Your task to perform on an android device: see tabs open on other devices in the chrome app Image 0: 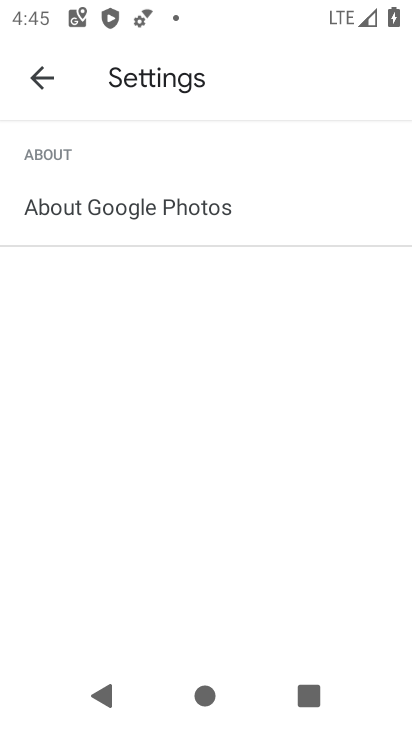
Step 0: press back button
Your task to perform on an android device: see tabs open on other devices in the chrome app Image 1: 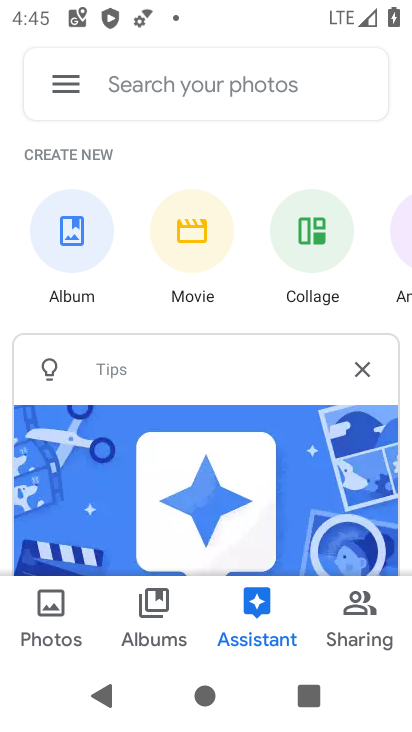
Step 1: press back button
Your task to perform on an android device: see tabs open on other devices in the chrome app Image 2: 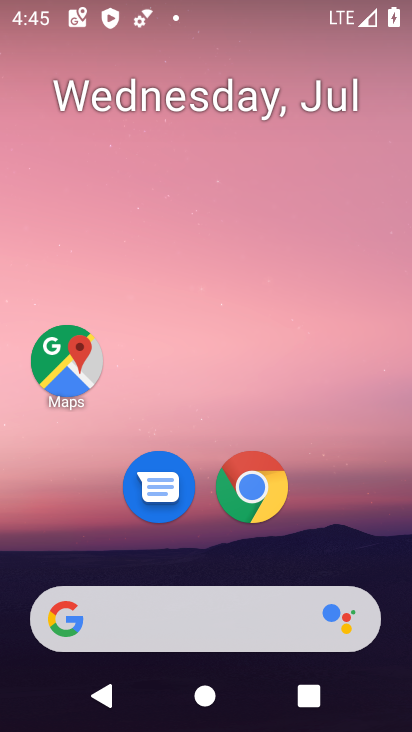
Step 2: click (272, 496)
Your task to perform on an android device: see tabs open on other devices in the chrome app Image 3: 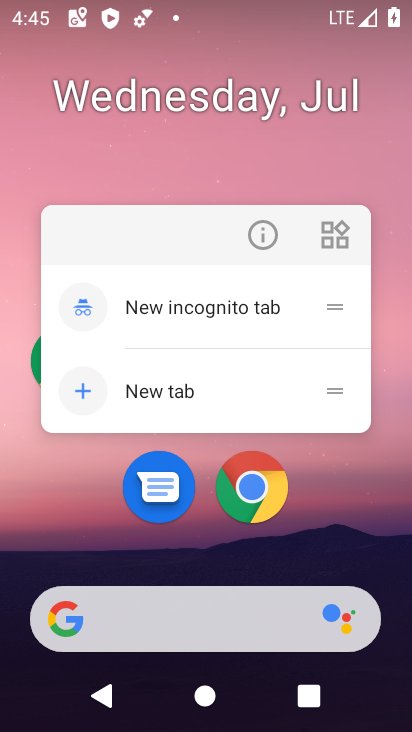
Step 3: click (256, 489)
Your task to perform on an android device: see tabs open on other devices in the chrome app Image 4: 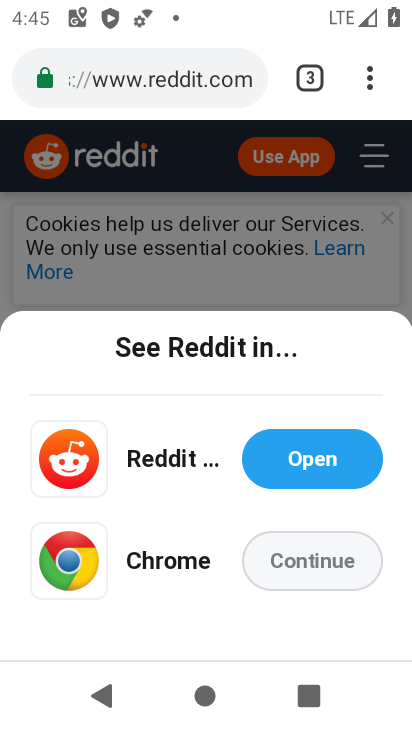
Step 4: click (186, 213)
Your task to perform on an android device: see tabs open on other devices in the chrome app Image 5: 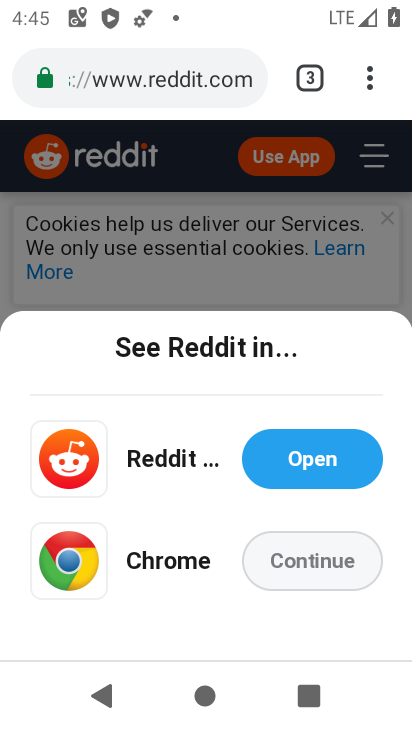
Step 5: task complete